Your task to perform on an android device: turn off javascript in the chrome app Image 0: 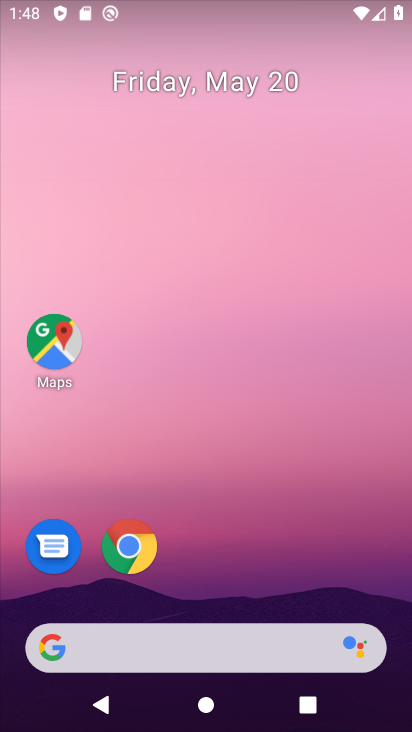
Step 0: drag from (221, 520) to (216, 48)
Your task to perform on an android device: turn off javascript in the chrome app Image 1: 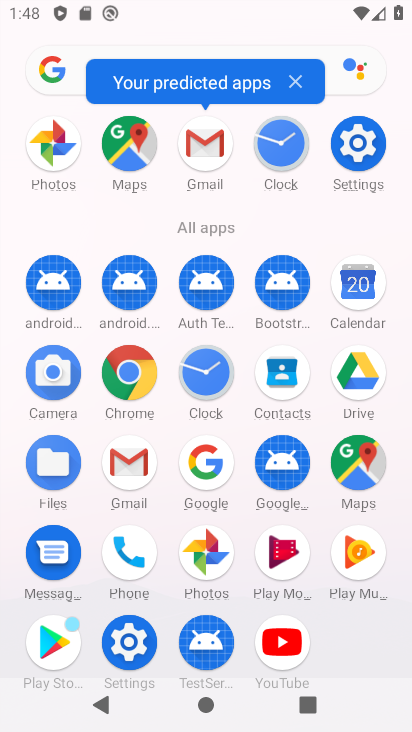
Step 1: drag from (13, 564) to (22, 242)
Your task to perform on an android device: turn off javascript in the chrome app Image 2: 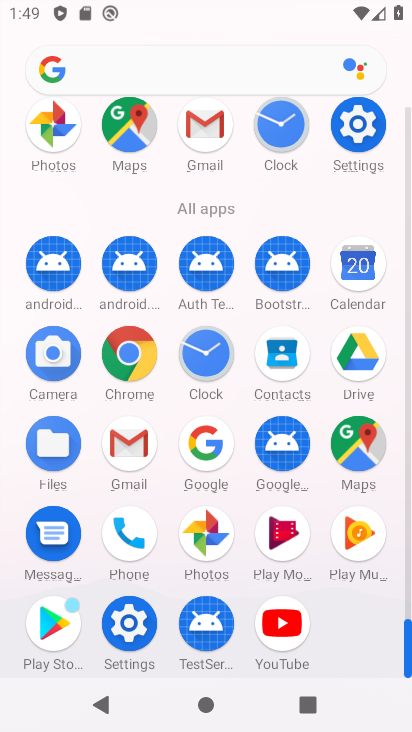
Step 2: click (120, 351)
Your task to perform on an android device: turn off javascript in the chrome app Image 3: 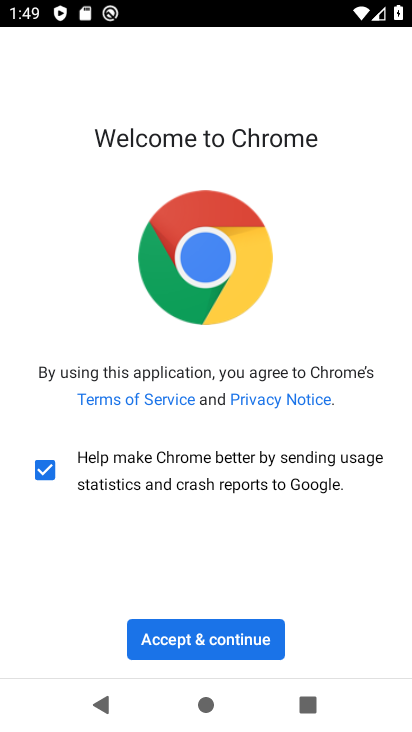
Step 3: click (240, 648)
Your task to perform on an android device: turn off javascript in the chrome app Image 4: 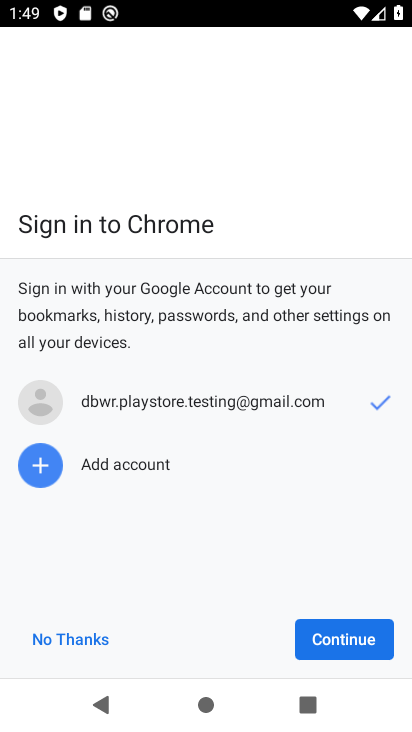
Step 4: click (329, 631)
Your task to perform on an android device: turn off javascript in the chrome app Image 5: 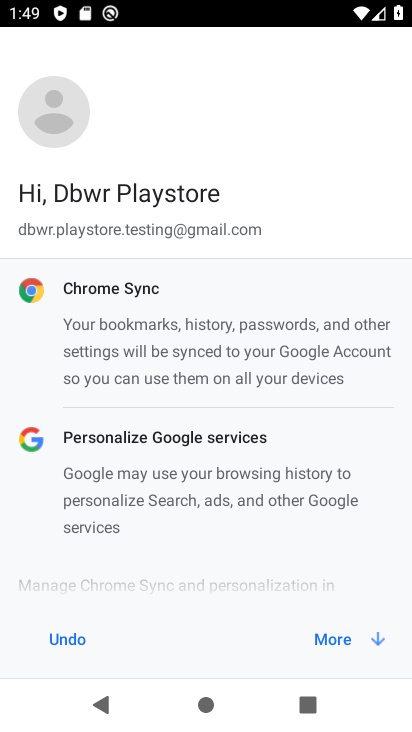
Step 5: click (329, 631)
Your task to perform on an android device: turn off javascript in the chrome app Image 6: 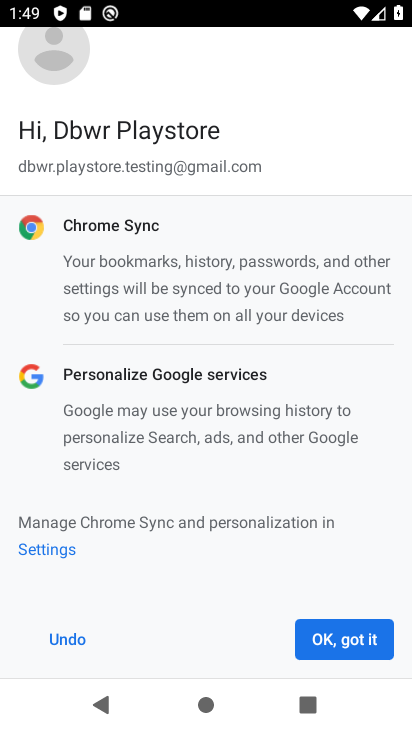
Step 6: click (329, 631)
Your task to perform on an android device: turn off javascript in the chrome app Image 7: 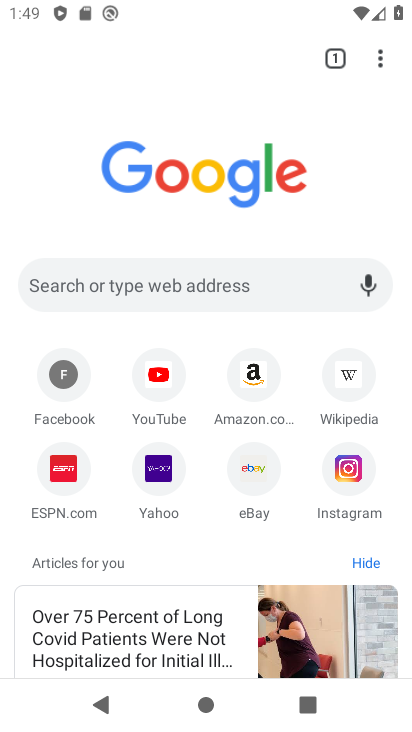
Step 7: drag from (403, 62) to (184, 494)
Your task to perform on an android device: turn off javascript in the chrome app Image 8: 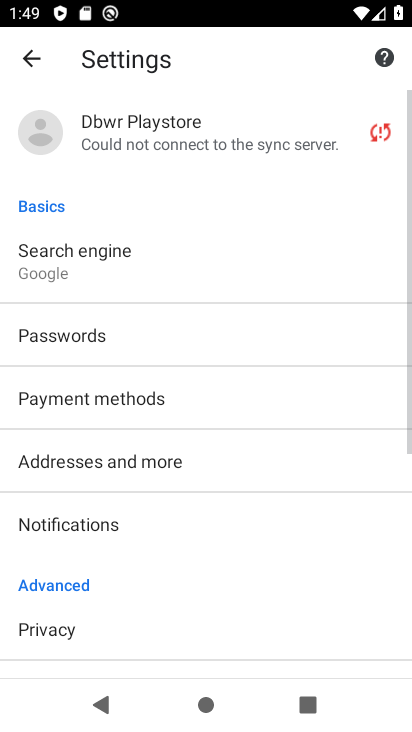
Step 8: drag from (211, 603) to (227, 195)
Your task to perform on an android device: turn off javascript in the chrome app Image 9: 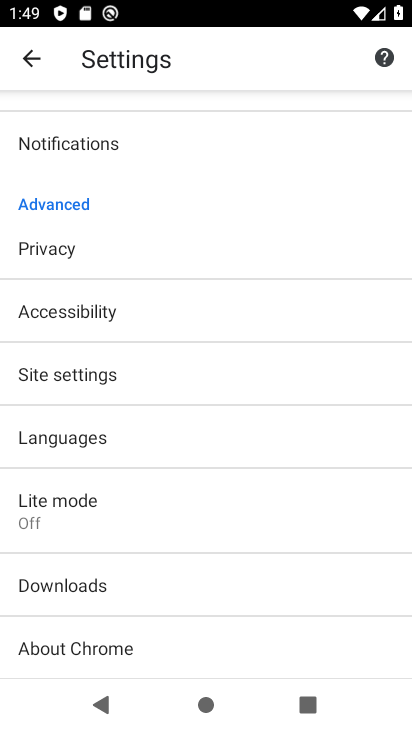
Step 9: click (117, 372)
Your task to perform on an android device: turn off javascript in the chrome app Image 10: 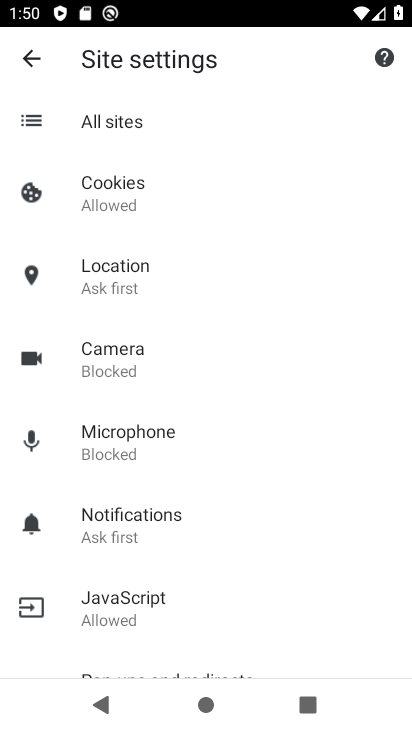
Step 10: drag from (193, 556) to (210, 144)
Your task to perform on an android device: turn off javascript in the chrome app Image 11: 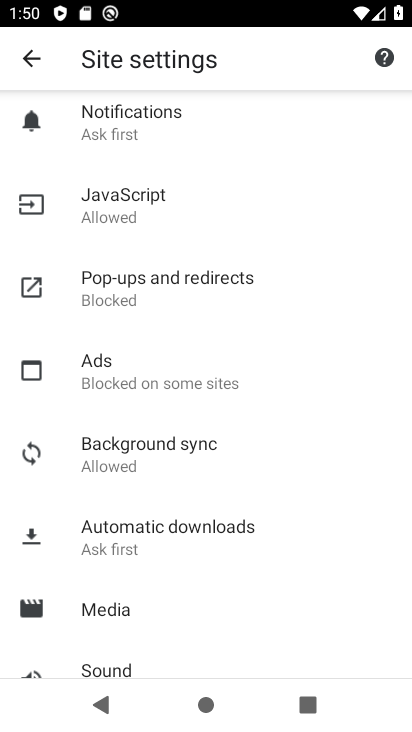
Step 11: click (135, 195)
Your task to perform on an android device: turn off javascript in the chrome app Image 12: 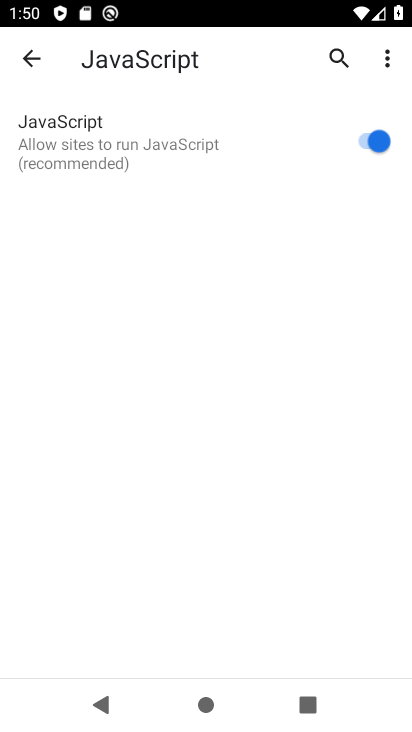
Step 12: click (372, 138)
Your task to perform on an android device: turn off javascript in the chrome app Image 13: 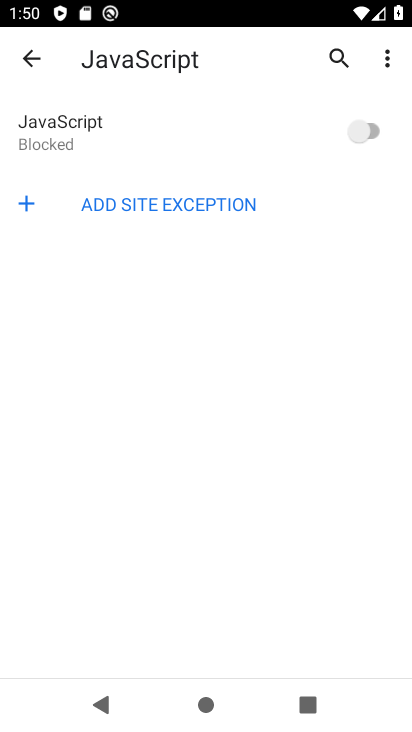
Step 13: task complete